Your task to perform on an android device: Go to battery settings Image 0: 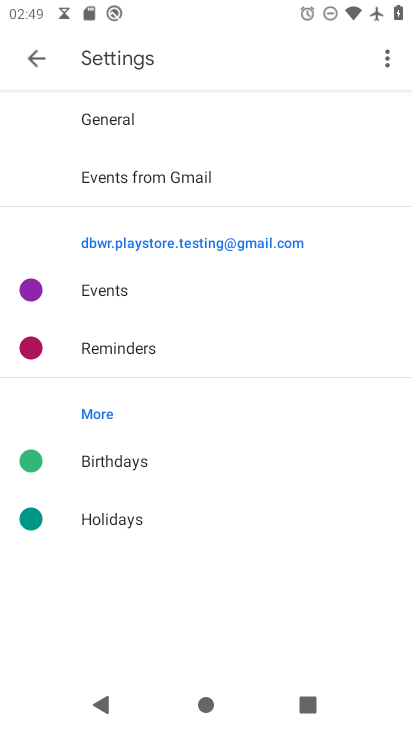
Step 0: press home button
Your task to perform on an android device: Go to battery settings Image 1: 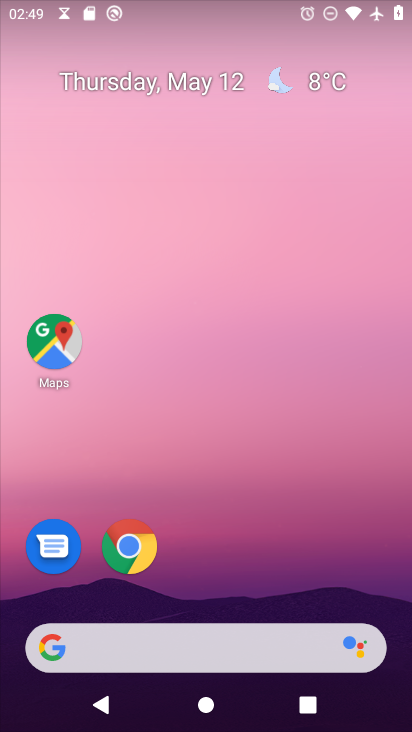
Step 1: drag from (109, 662) to (250, 140)
Your task to perform on an android device: Go to battery settings Image 2: 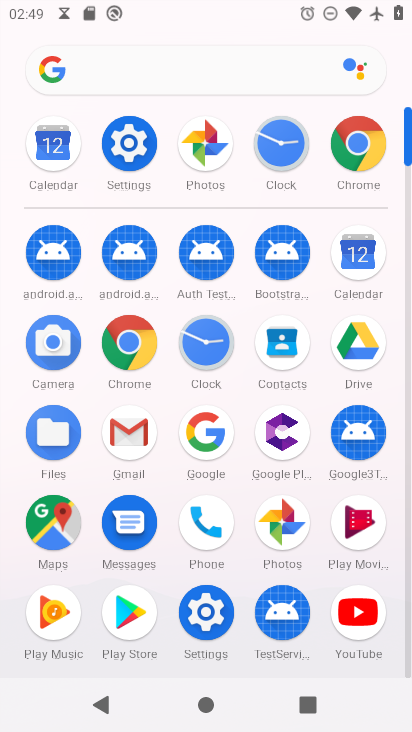
Step 2: click (131, 147)
Your task to perform on an android device: Go to battery settings Image 3: 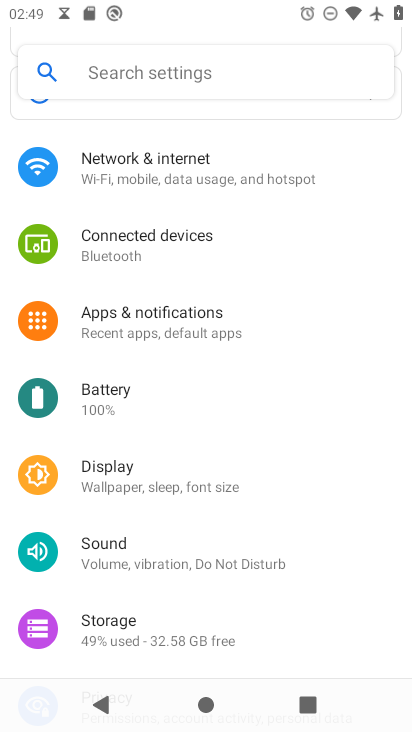
Step 3: drag from (188, 592) to (304, 203)
Your task to perform on an android device: Go to battery settings Image 4: 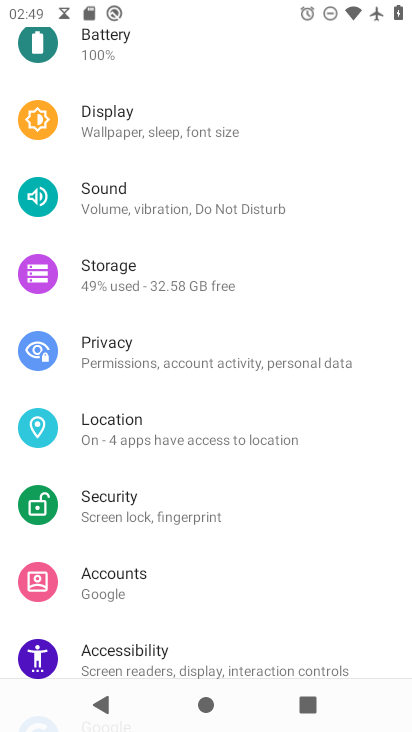
Step 4: drag from (304, 104) to (300, 361)
Your task to perform on an android device: Go to battery settings Image 5: 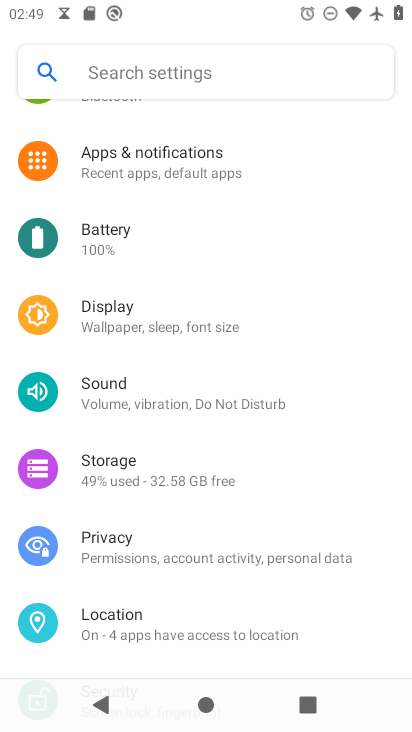
Step 5: click (113, 238)
Your task to perform on an android device: Go to battery settings Image 6: 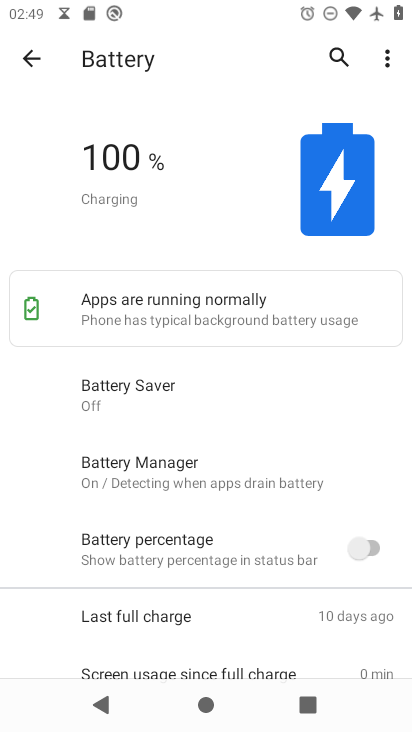
Step 6: task complete